Your task to perform on an android device: Open privacy settings Image 0: 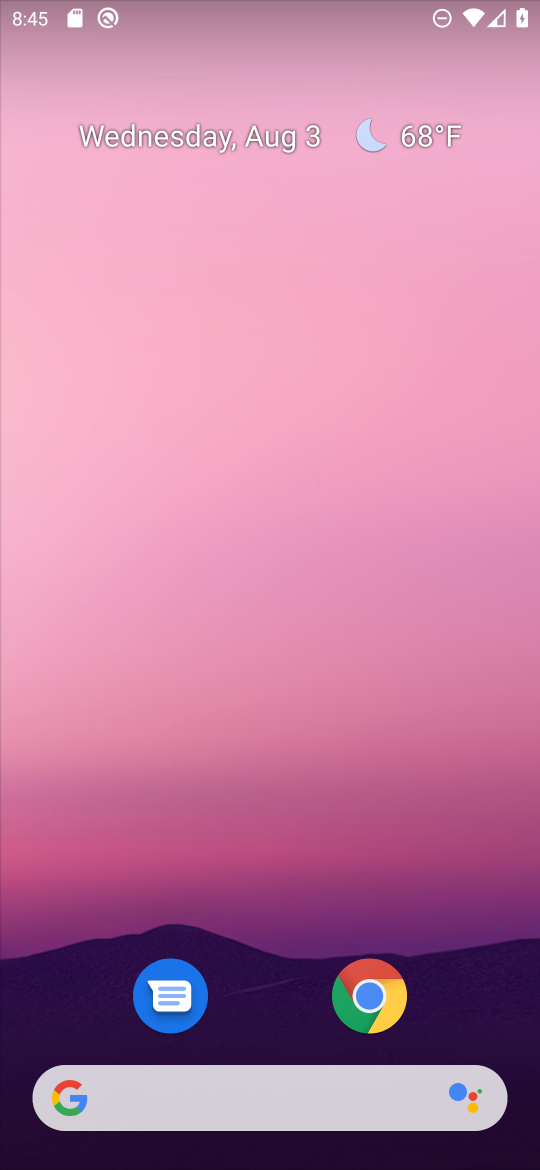
Step 0: drag from (283, 873) to (337, 0)
Your task to perform on an android device: Open privacy settings Image 1: 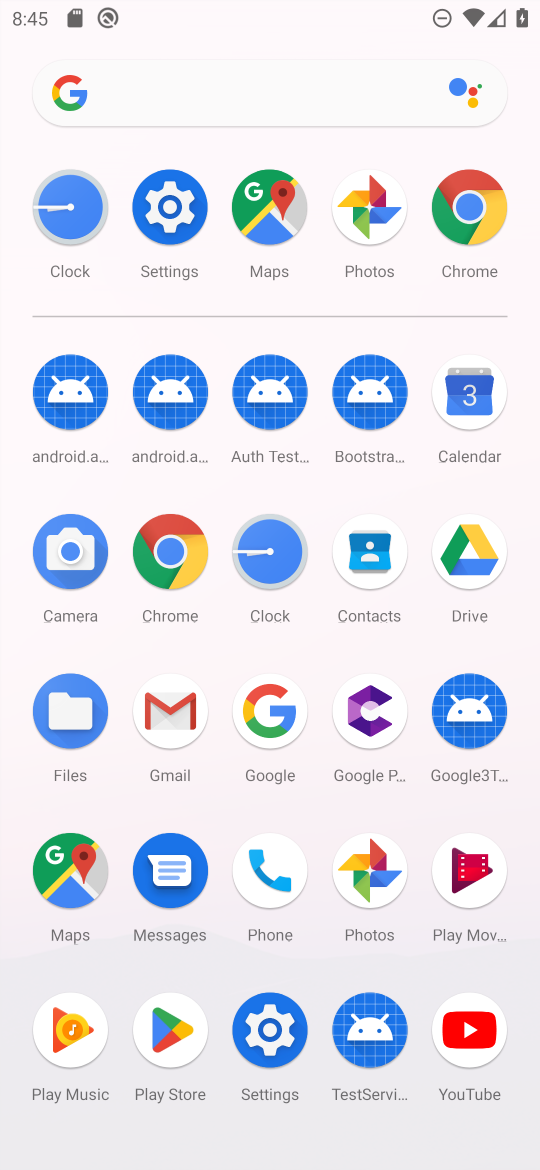
Step 1: click (181, 215)
Your task to perform on an android device: Open privacy settings Image 2: 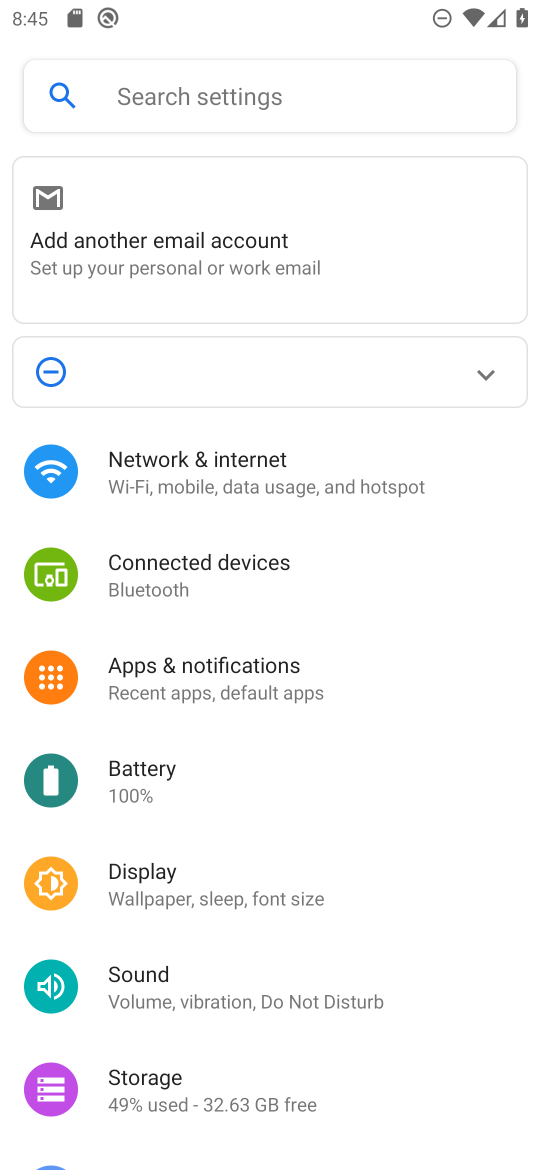
Step 2: drag from (273, 948) to (336, 102)
Your task to perform on an android device: Open privacy settings Image 3: 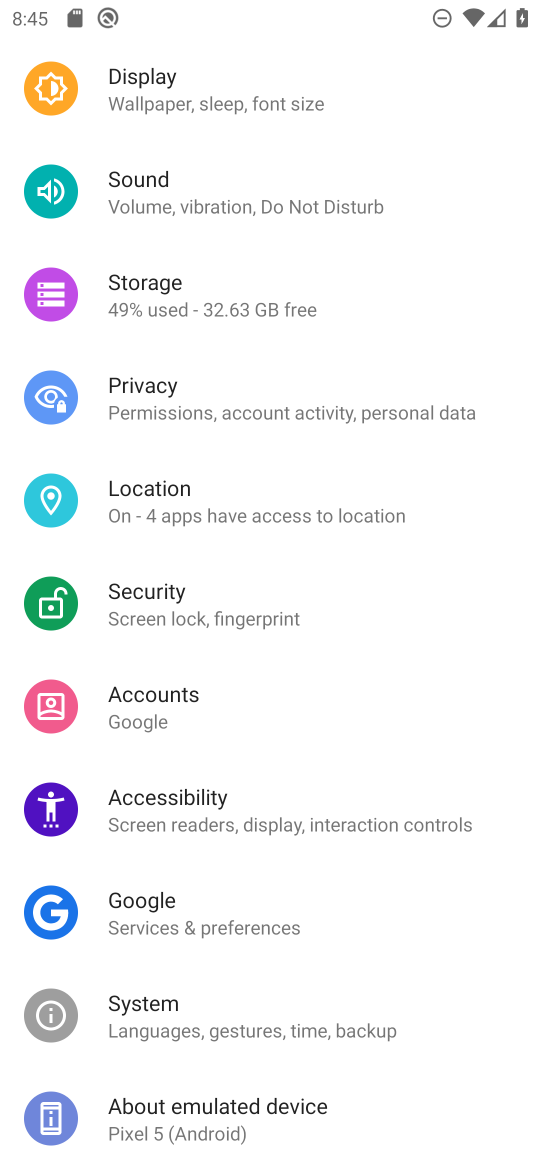
Step 3: click (259, 406)
Your task to perform on an android device: Open privacy settings Image 4: 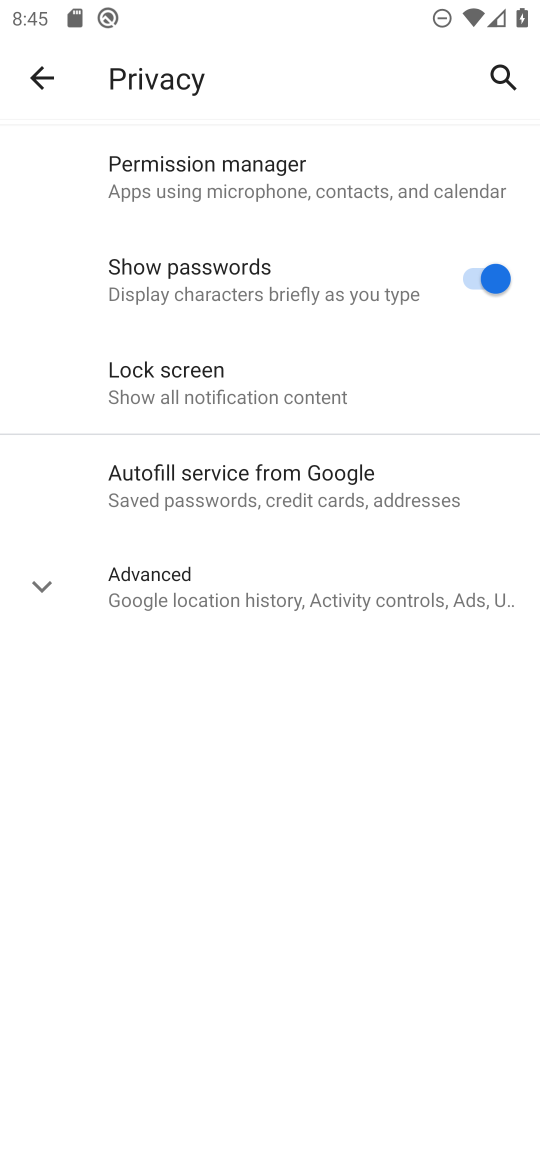
Step 4: task complete